Your task to perform on an android device: add a contact Image 0: 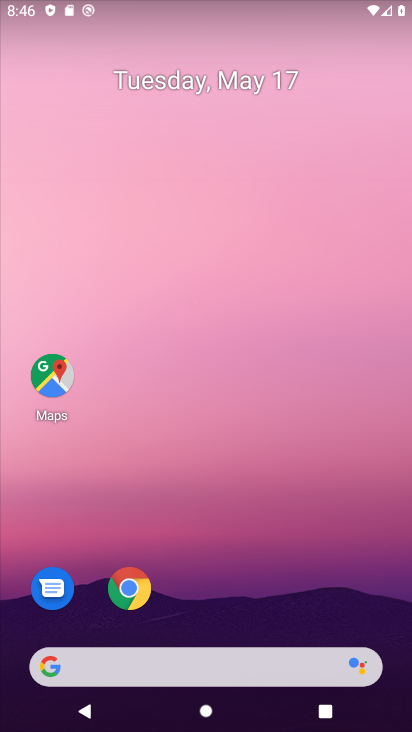
Step 0: click (389, 502)
Your task to perform on an android device: add a contact Image 1: 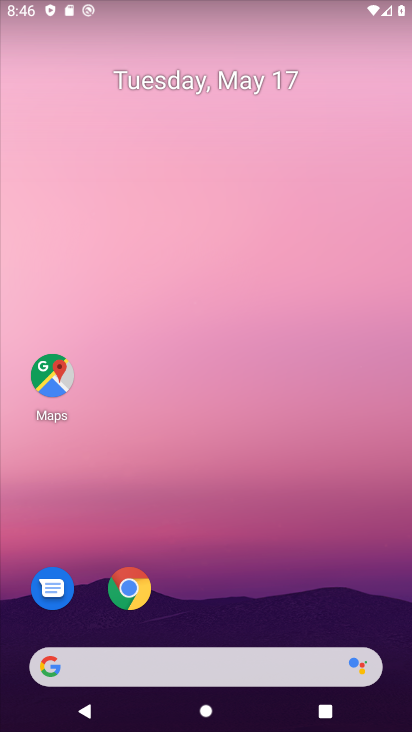
Step 1: drag from (350, 445) to (352, 350)
Your task to perform on an android device: add a contact Image 2: 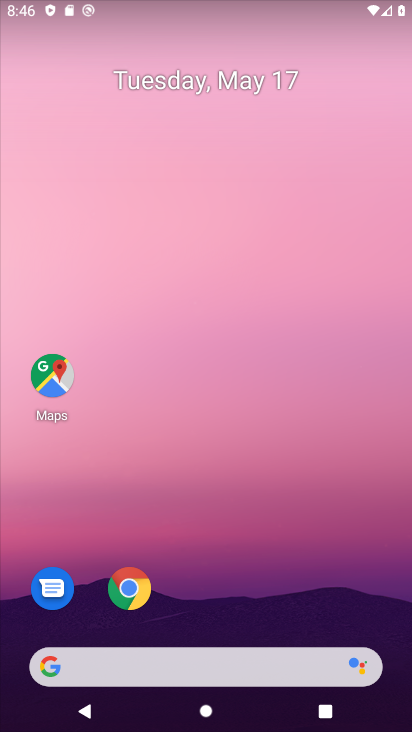
Step 2: drag from (386, 77) to (377, 16)
Your task to perform on an android device: add a contact Image 3: 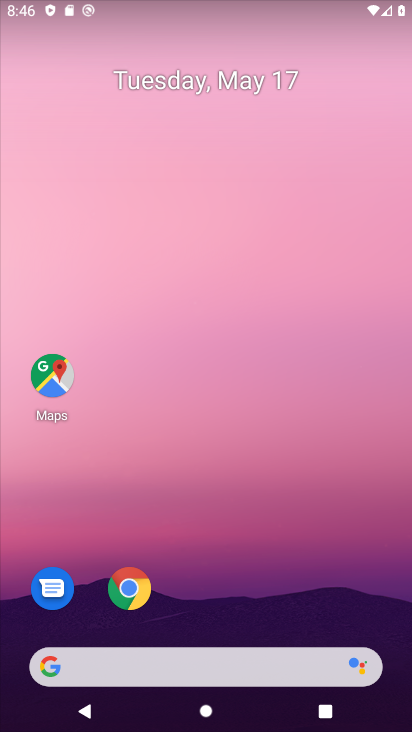
Step 3: drag from (387, 585) to (360, 90)
Your task to perform on an android device: add a contact Image 4: 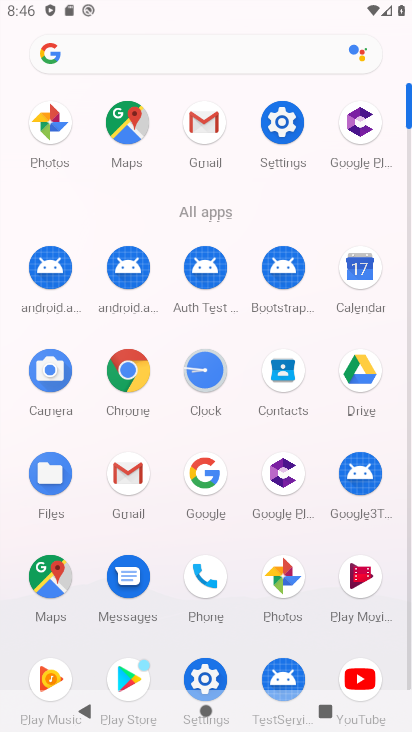
Step 4: click (122, 464)
Your task to perform on an android device: add a contact Image 5: 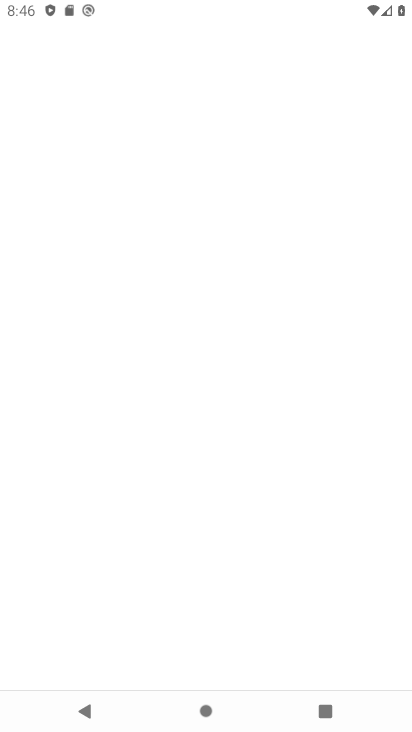
Step 5: press back button
Your task to perform on an android device: add a contact Image 6: 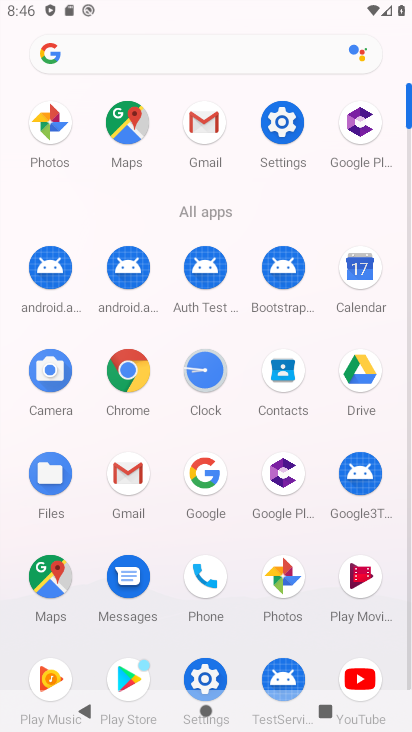
Step 6: click (290, 373)
Your task to perform on an android device: add a contact Image 7: 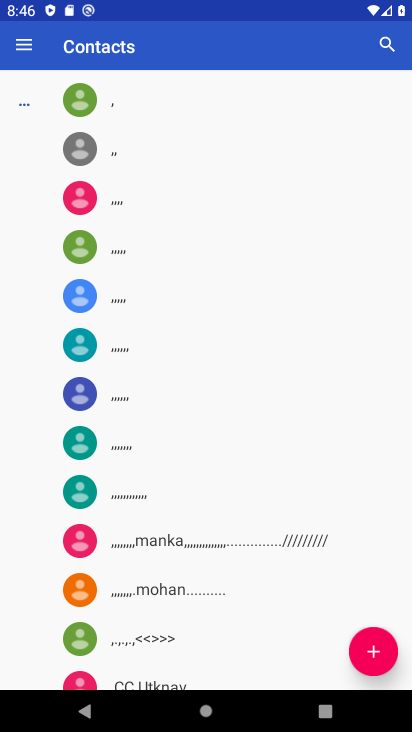
Step 7: click (357, 637)
Your task to perform on an android device: add a contact Image 8: 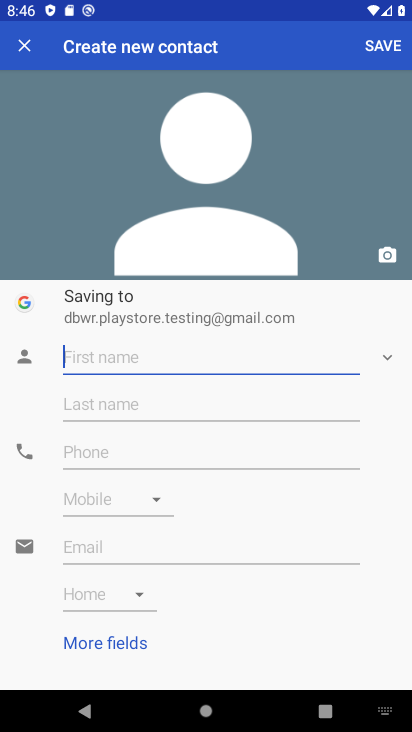
Step 8: type "efhgngf"
Your task to perform on an android device: add a contact Image 9: 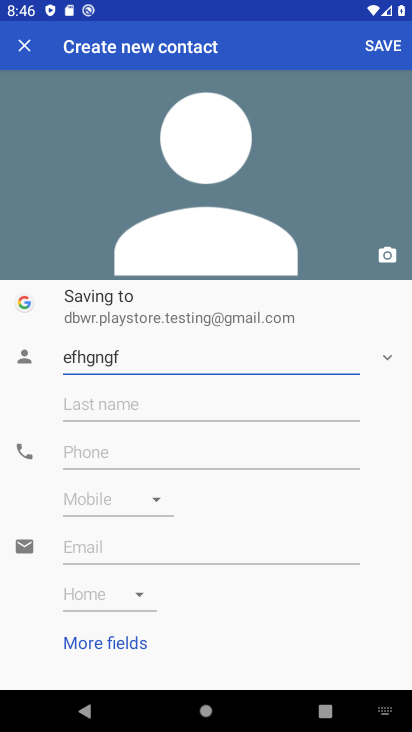
Step 9: click (281, 410)
Your task to perform on an android device: add a contact Image 10: 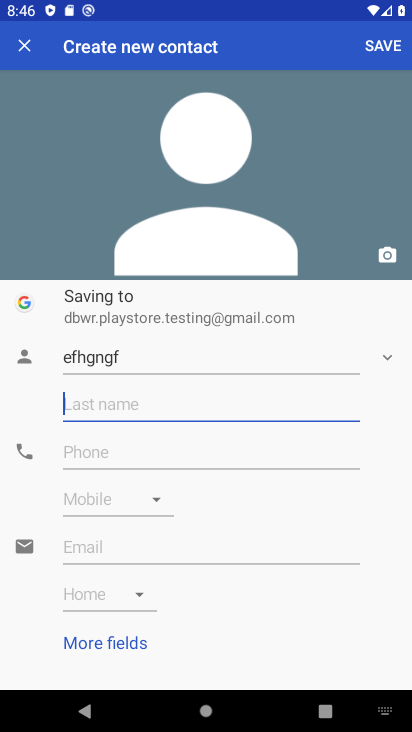
Step 10: type "ghthhssj"
Your task to perform on an android device: add a contact Image 11: 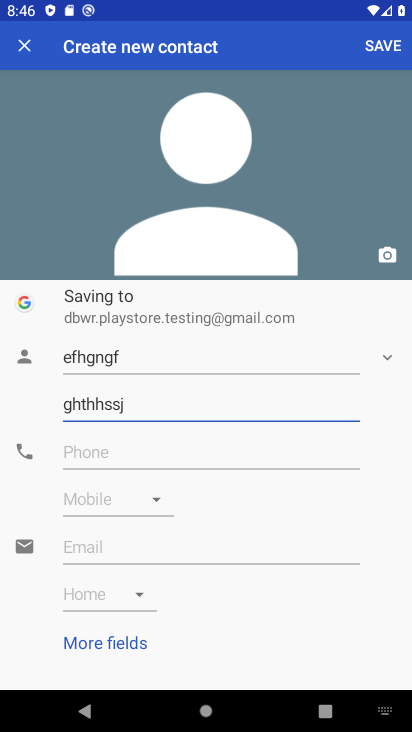
Step 11: click (223, 445)
Your task to perform on an android device: add a contact Image 12: 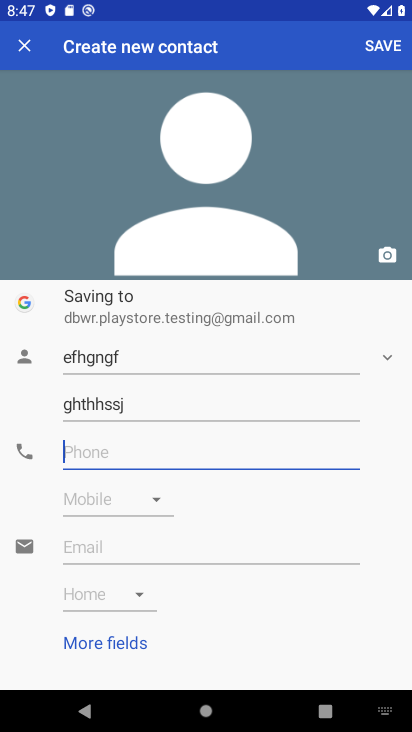
Step 12: type "136431453315"
Your task to perform on an android device: add a contact Image 13: 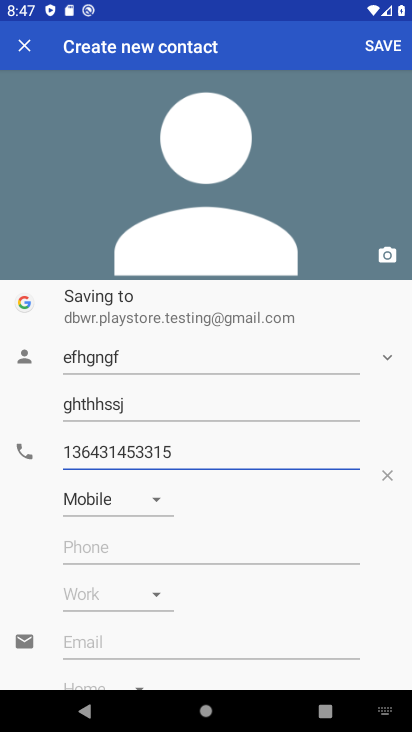
Step 13: click (360, 41)
Your task to perform on an android device: add a contact Image 14: 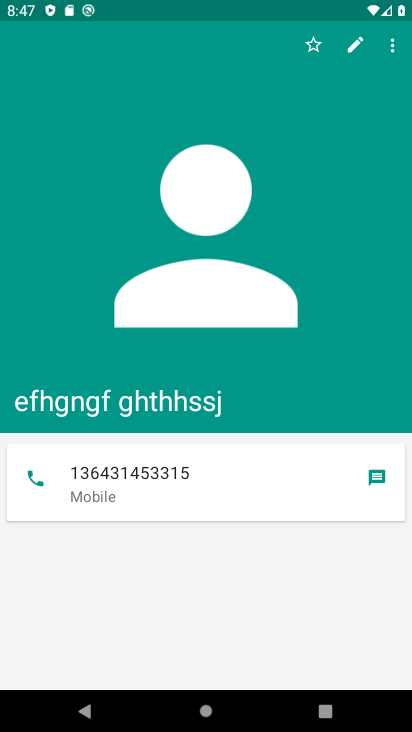
Step 14: task complete